Your task to perform on an android device: toggle show notifications on the lock screen Image 0: 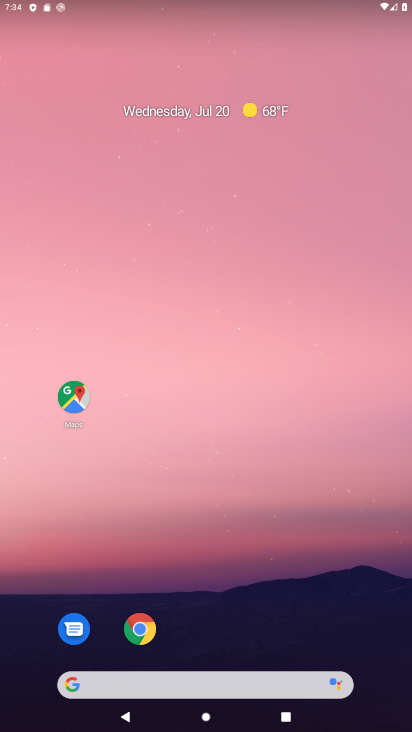
Step 0: drag from (386, 582) to (388, 89)
Your task to perform on an android device: toggle show notifications on the lock screen Image 1: 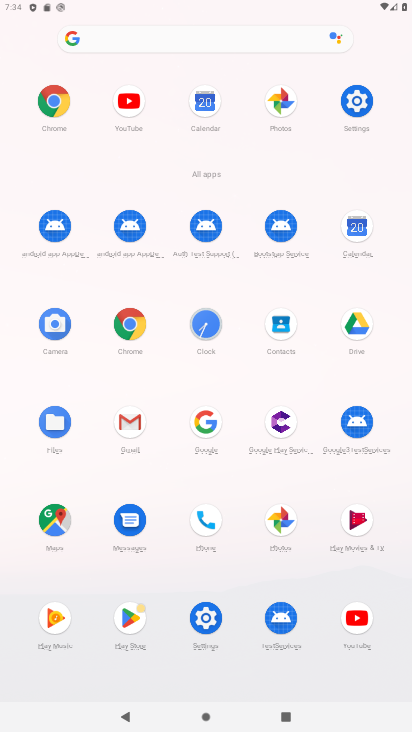
Step 1: click (358, 101)
Your task to perform on an android device: toggle show notifications on the lock screen Image 2: 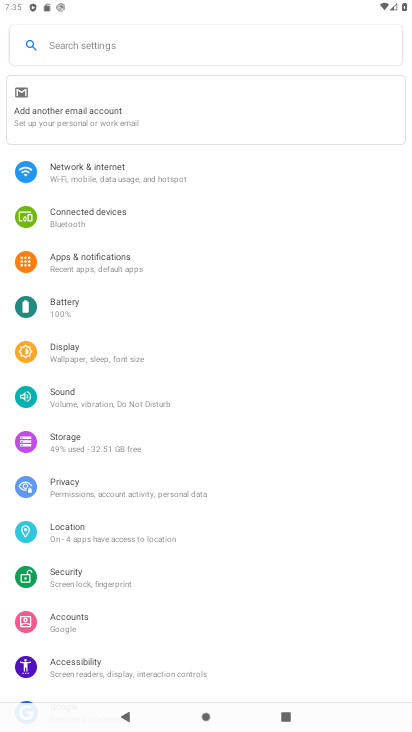
Step 2: click (137, 262)
Your task to perform on an android device: toggle show notifications on the lock screen Image 3: 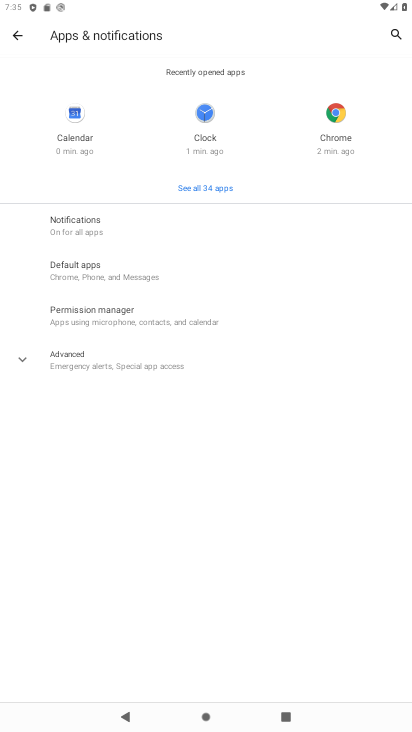
Step 3: click (115, 219)
Your task to perform on an android device: toggle show notifications on the lock screen Image 4: 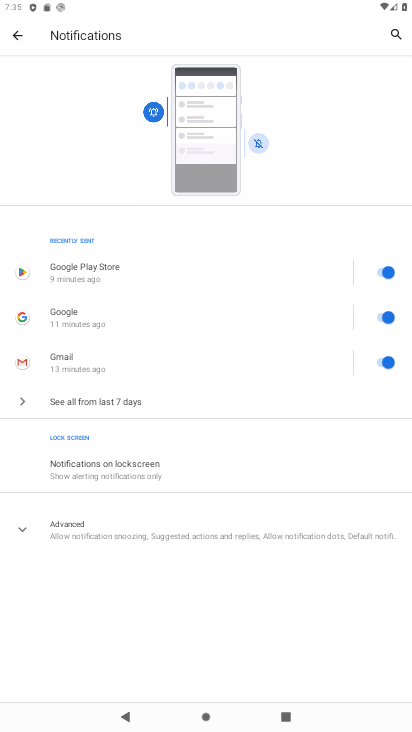
Step 4: click (188, 462)
Your task to perform on an android device: toggle show notifications on the lock screen Image 5: 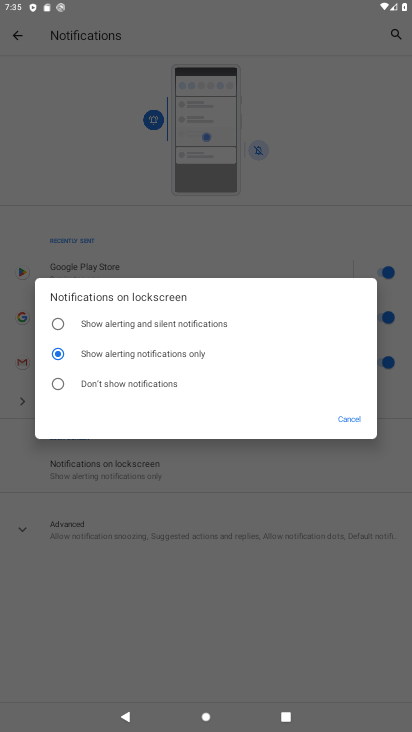
Step 5: click (154, 323)
Your task to perform on an android device: toggle show notifications on the lock screen Image 6: 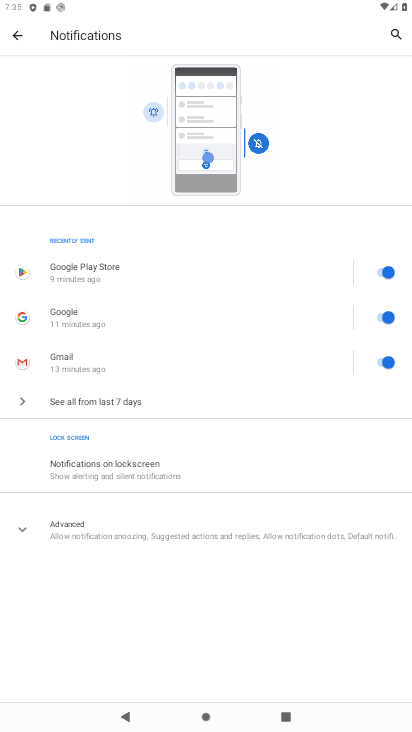
Step 6: task complete